Your task to perform on an android device: What's on my calendar tomorrow? Image 0: 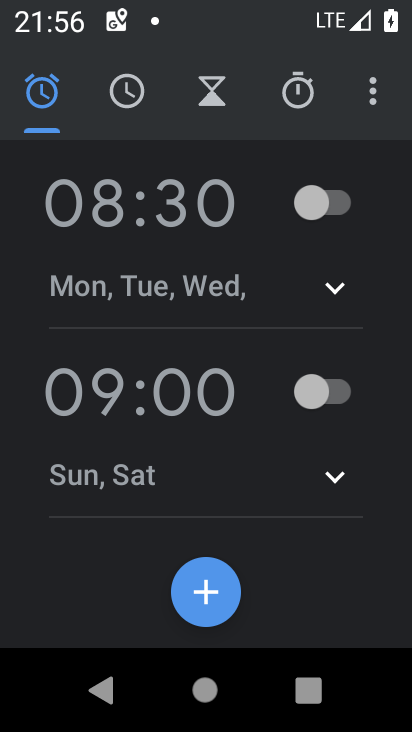
Step 0: press home button
Your task to perform on an android device: What's on my calendar tomorrow? Image 1: 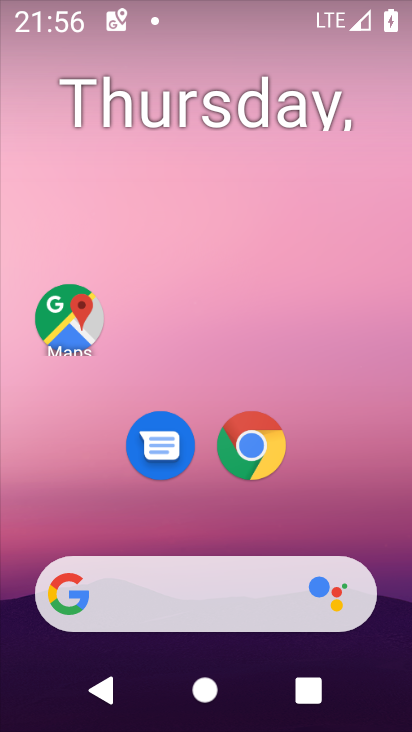
Step 1: drag from (239, 501) to (198, 179)
Your task to perform on an android device: What's on my calendar tomorrow? Image 2: 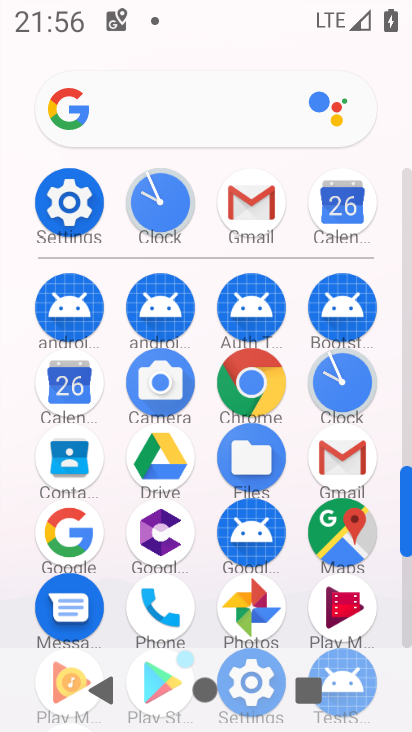
Step 2: click (65, 393)
Your task to perform on an android device: What's on my calendar tomorrow? Image 3: 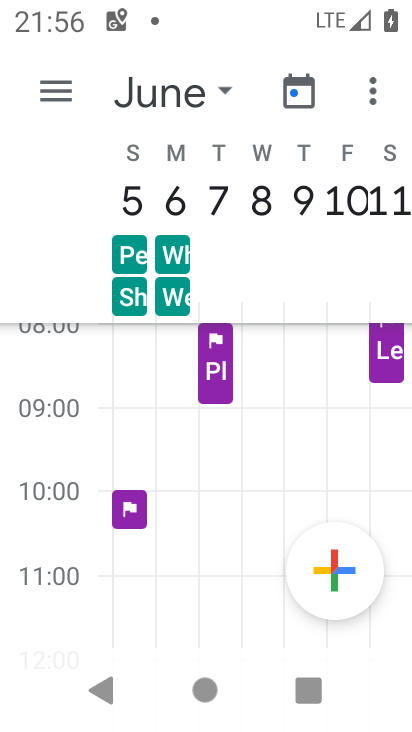
Step 3: click (63, 91)
Your task to perform on an android device: What's on my calendar tomorrow? Image 4: 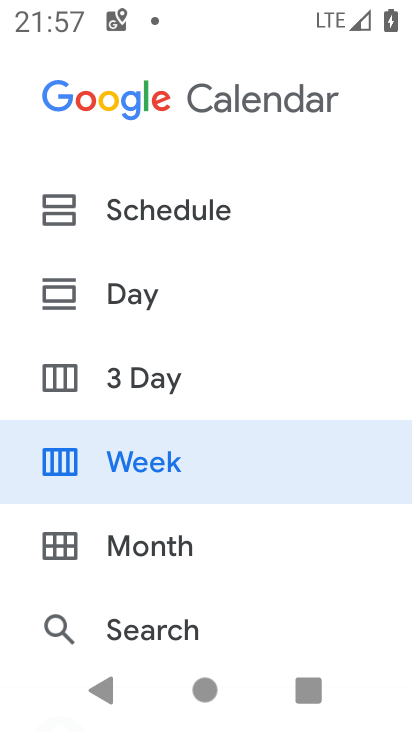
Step 4: click (153, 317)
Your task to perform on an android device: What's on my calendar tomorrow? Image 5: 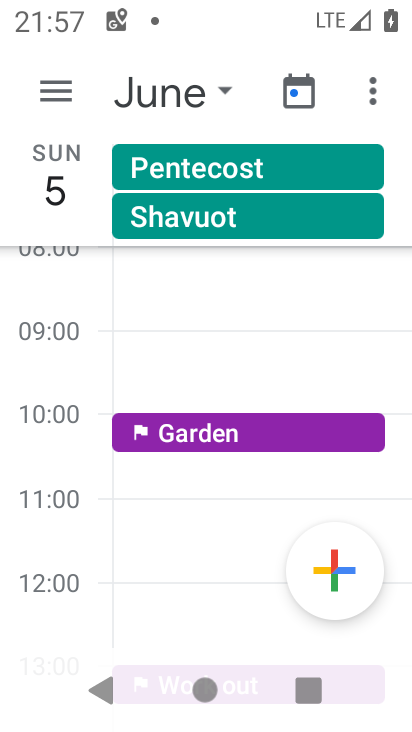
Step 5: click (193, 96)
Your task to perform on an android device: What's on my calendar tomorrow? Image 6: 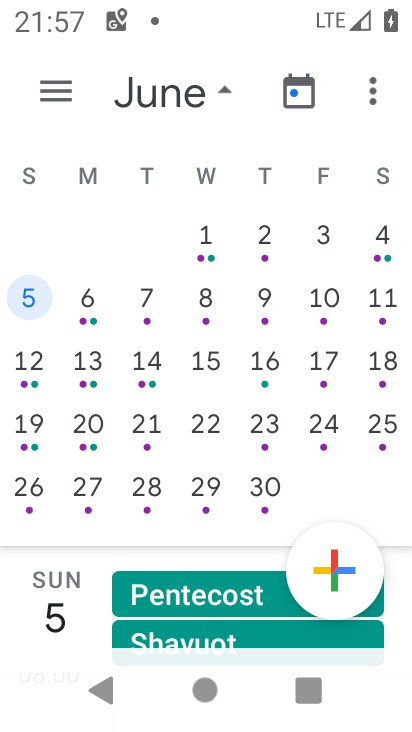
Step 6: drag from (99, 272) to (396, 288)
Your task to perform on an android device: What's on my calendar tomorrow? Image 7: 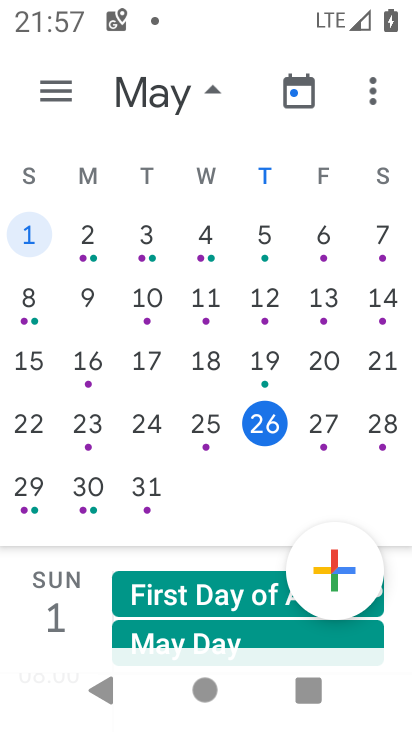
Step 7: click (328, 441)
Your task to perform on an android device: What's on my calendar tomorrow? Image 8: 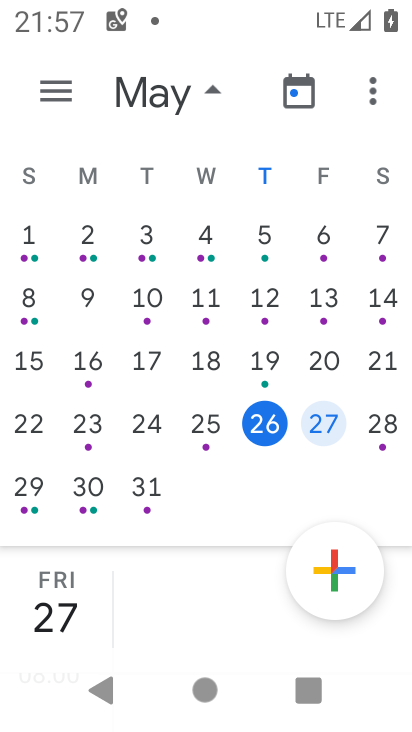
Step 8: click (202, 82)
Your task to perform on an android device: What's on my calendar tomorrow? Image 9: 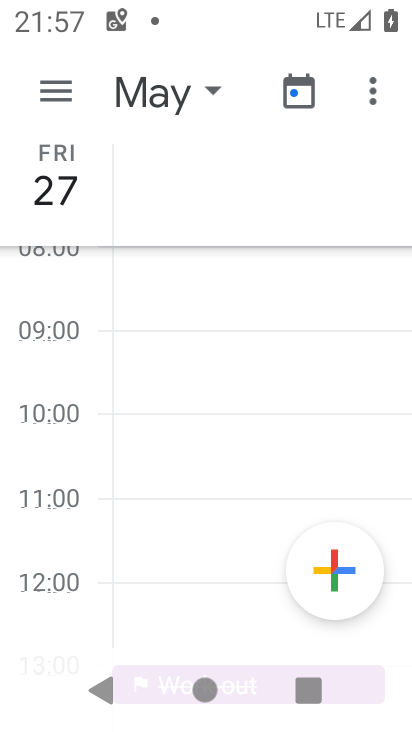
Step 9: task complete